Your task to perform on an android device: install app "Google Chrome" Image 0: 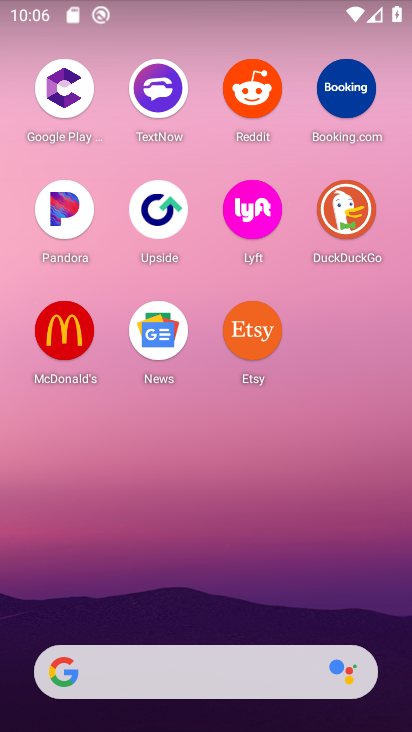
Step 0: drag from (248, 573) to (205, 4)
Your task to perform on an android device: install app "Google Chrome" Image 1: 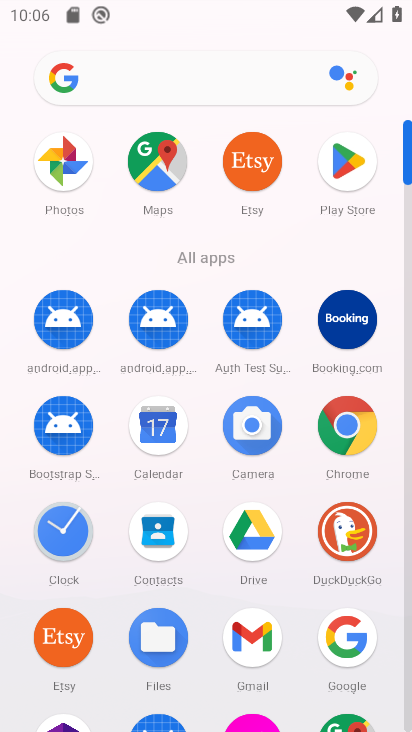
Step 1: click (345, 419)
Your task to perform on an android device: install app "Google Chrome" Image 2: 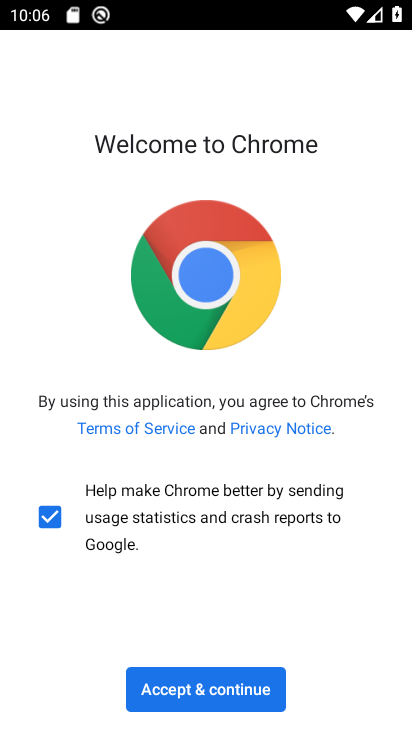
Step 2: click (174, 686)
Your task to perform on an android device: install app "Google Chrome" Image 3: 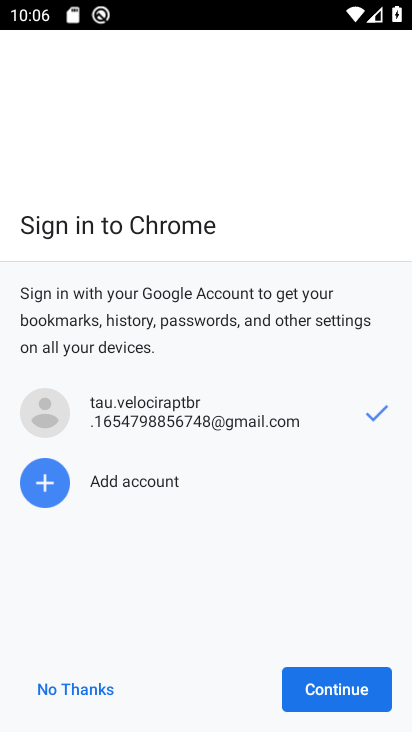
Step 3: click (371, 698)
Your task to perform on an android device: install app "Google Chrome" Image 4: 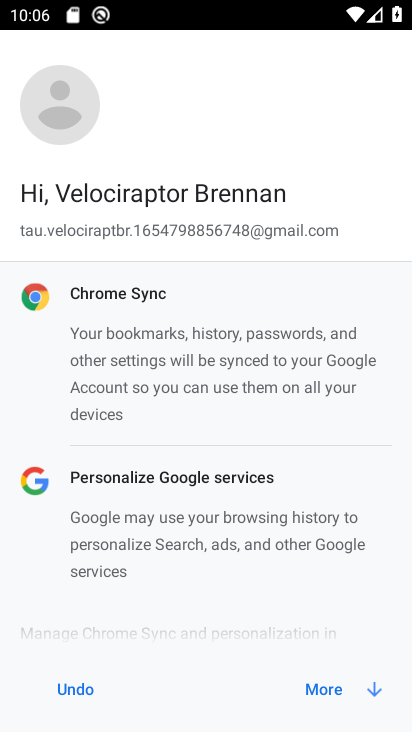
Step 4: click (311, 692)
Your task to perform on an android device: install app "Google Chrome" Image 5: 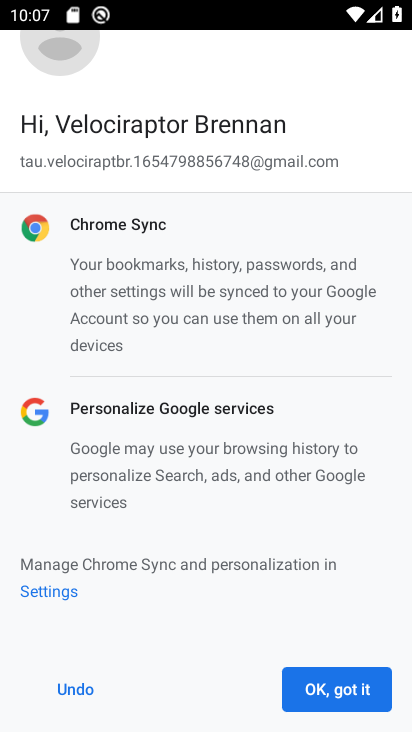
Step 5: click (311, 692)
Your task to perform on an android device: install app "Google Chrome" Image 6: 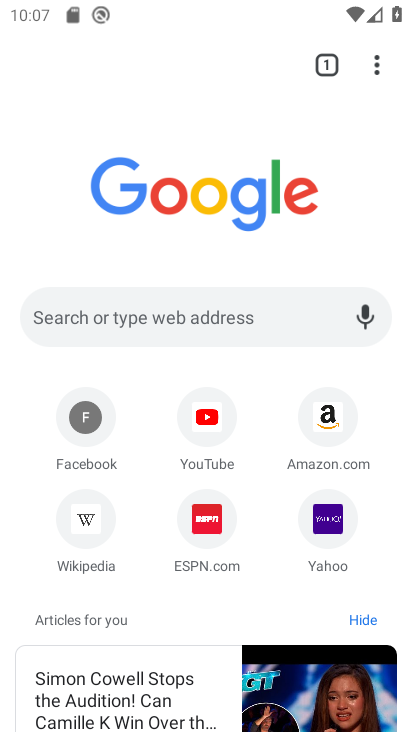
Step 6: task complete